Your task to perform on an android device: clear all cookies in the chrome app Image 0: 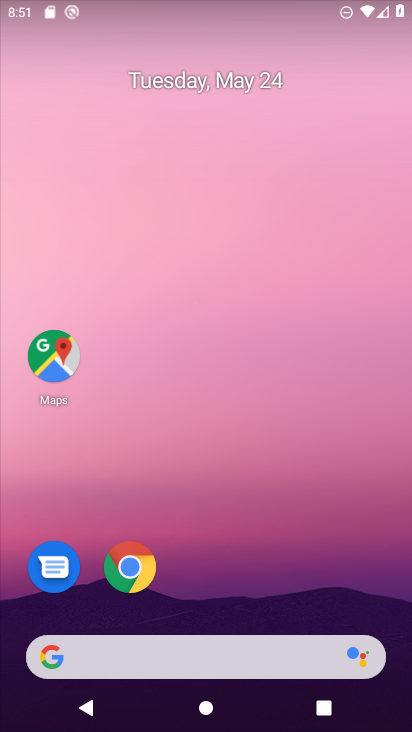
Step 0: press home button
Your task to perform on an android device: clear all cookies in the chrome app Image 1: 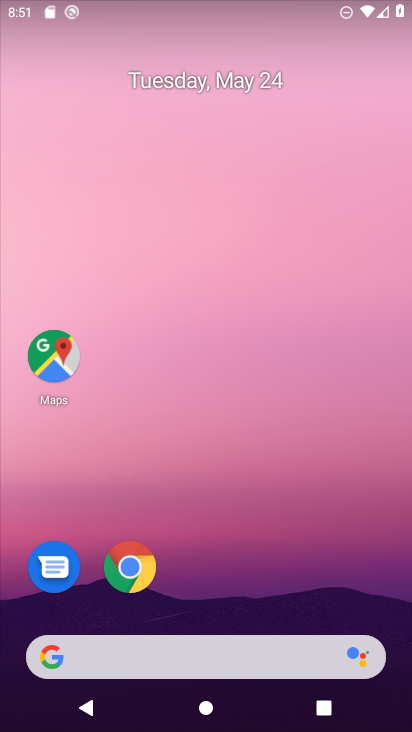
Step 1: click (134, 579)
Your task to perform on an android device: clear all cookies in the chrome app Image 2: 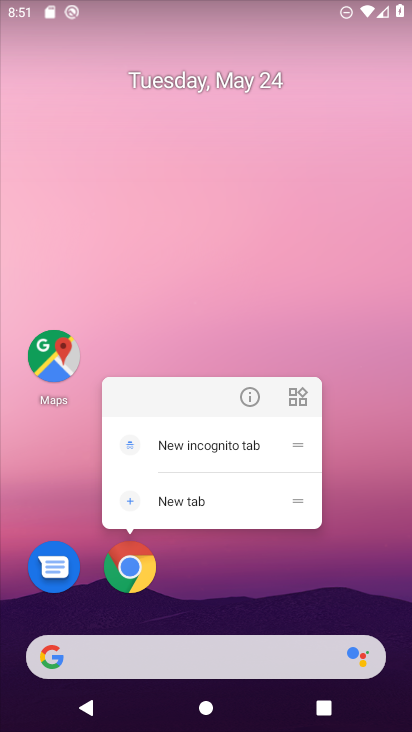
Step 2: click (134, 563)
Your task to perform on an android device: clear all cookies in the chrome app Image 3: 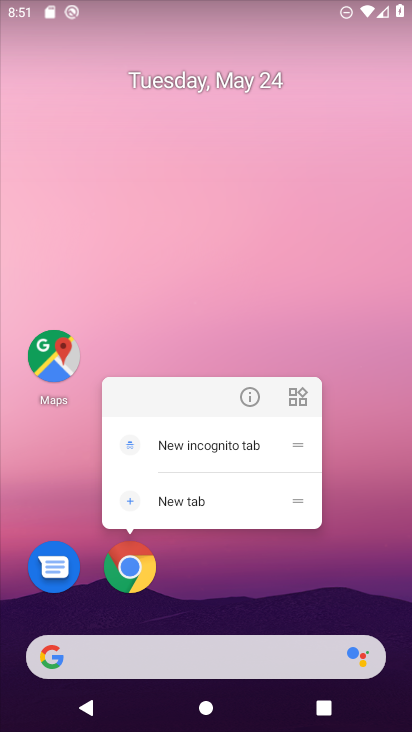
Step 3: click (128, 570)
Your task to perform on an android device: clear all cookies in the chrome app Image 4: 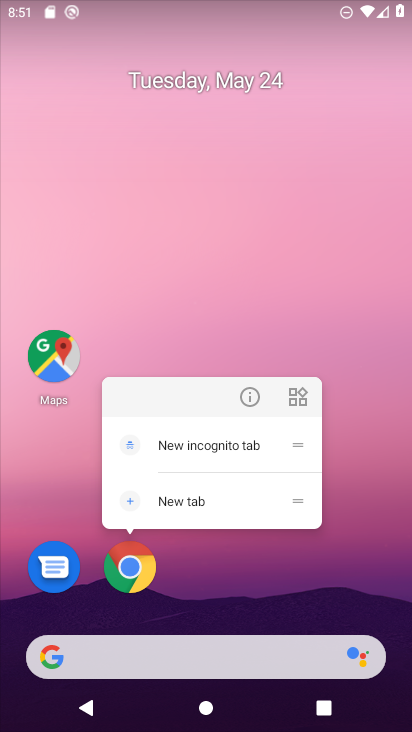
Step 4: click (127, 574)
Your task to perform on an android device: clear all cookies in the chrome app Image 5: 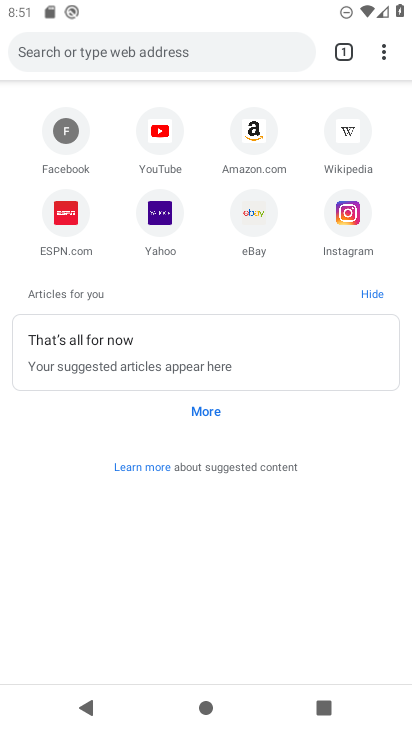
Step 5: drag from (383, 55) to (227, 433)
Your task to perform on an android device: clear all cookies in the chrome app Image 6: 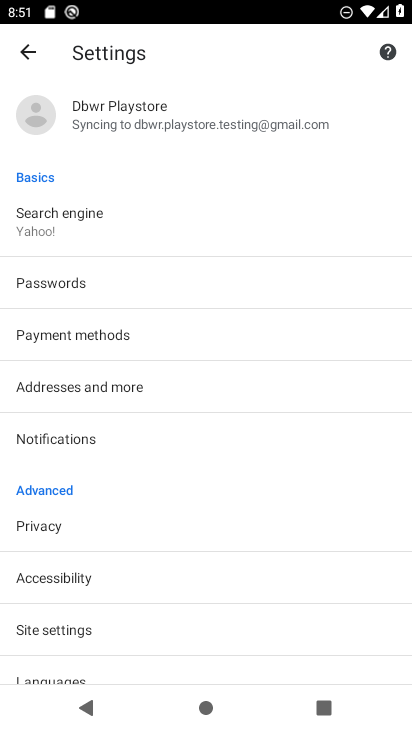
Step 6: click (44, 529)
Your task to perform on an android device: clear all cookies in the chrome app Image 7: 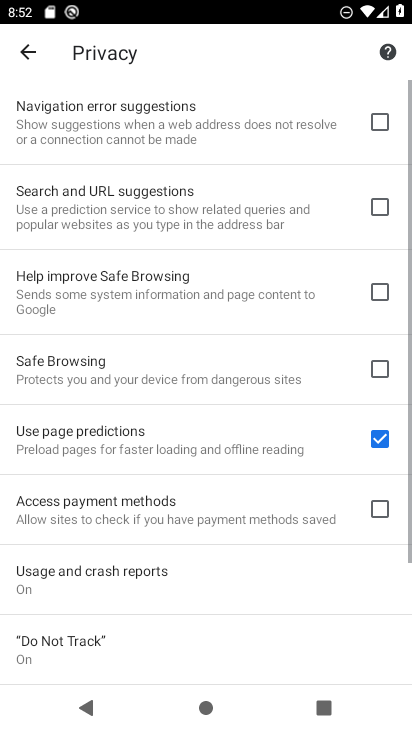
Step 7: drag from (140, 604) to (360, 147)
Your task to perform on an android device: clear all cookies in the chrome app Image 8: 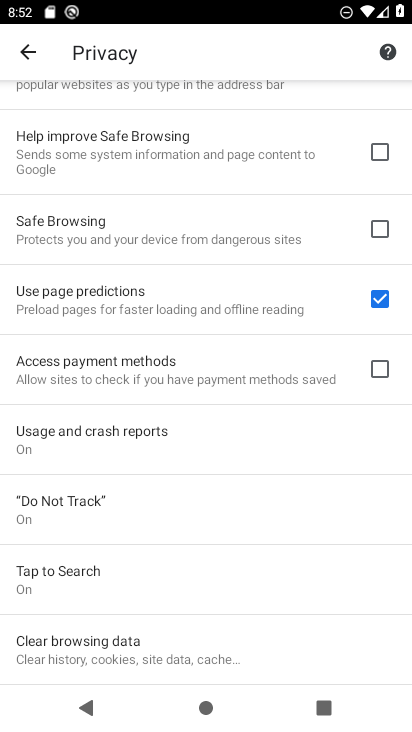
Step 8: click (146, 650)
Your task to perform on an android device: clear all cookies in the chrome app Image 9: 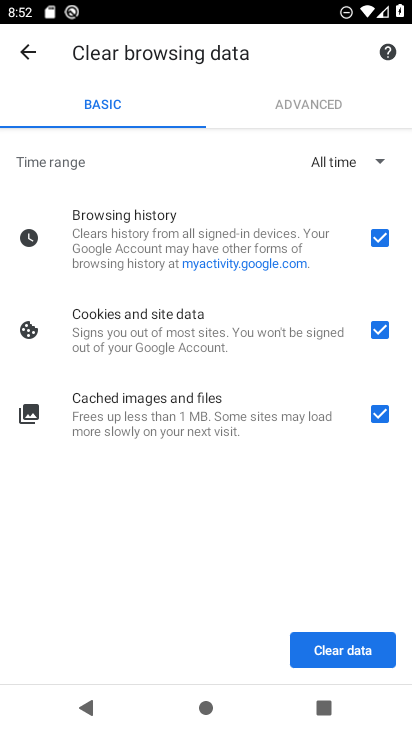
Step 9: click (378, 237)
Your task to perform on an android device: clear all cookies in the chrome app Image 10: 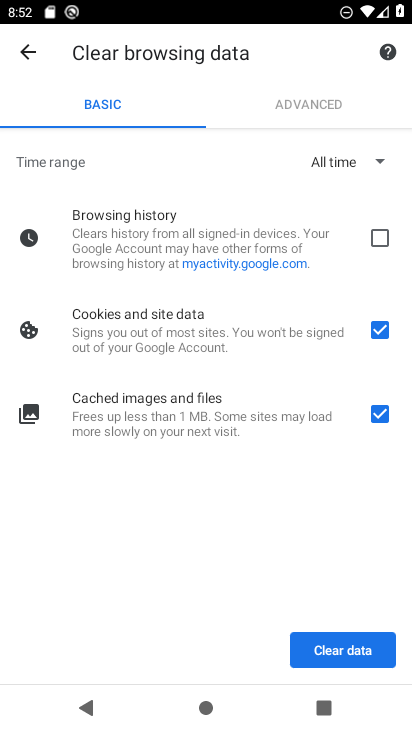
Step 10: click (379, 412)
Your task to perform on an android device: clear all cookies in the chrome app Image 11: 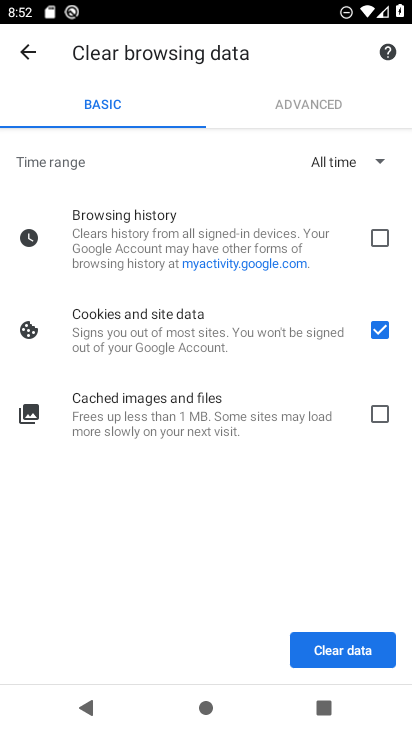
Step 11: click (337, 647)
Your task to perform on an android device: clear all cookies in the chrome app Image 12: 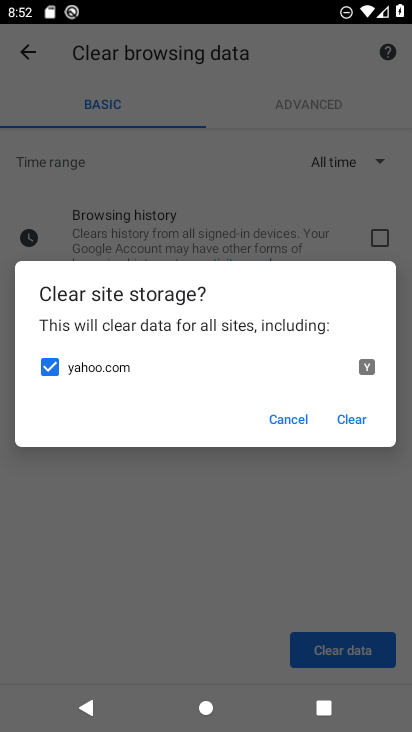
Step 12: click (359, 416)
Your task to perform on an android device: clear all cookies in the chrome app Image 13: 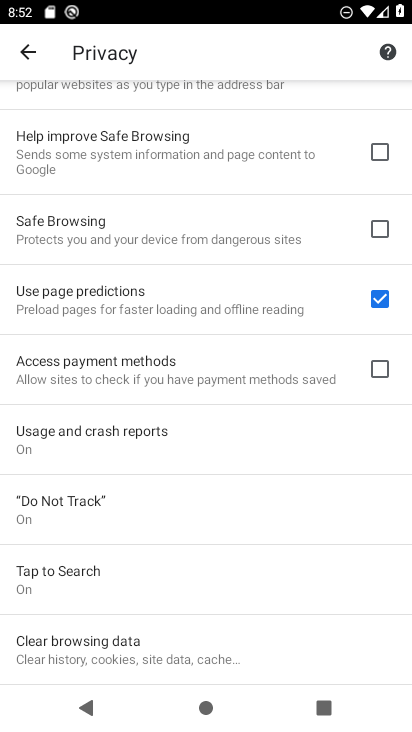
Step 13: task complete